Your task to perform on an android device: toggle javascript in the chrome app Image 0: 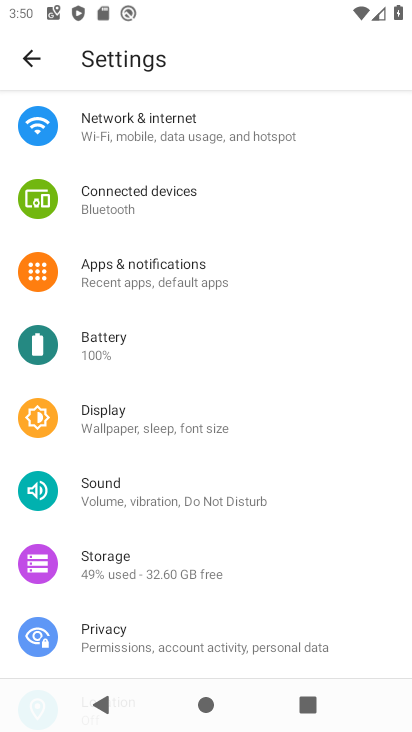
Step 0: press home button
Your task to perform on an android device: toggle javascript in the chrome app Image 1: 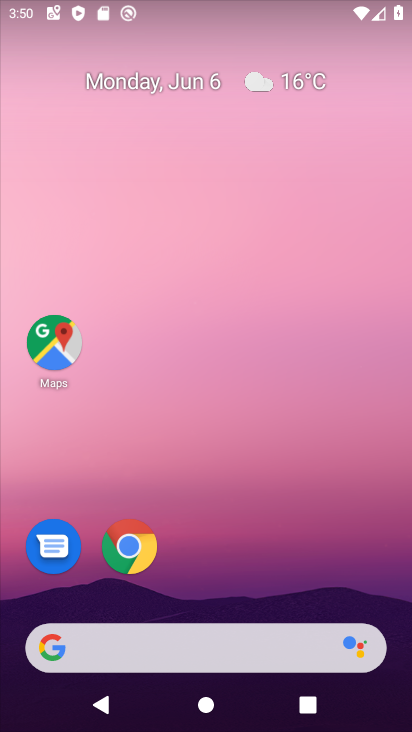
Step 1: drag from (311, 577) to (399, 212)
Your task to perform on an android device: toggle javascript in the chrome app Image 2: 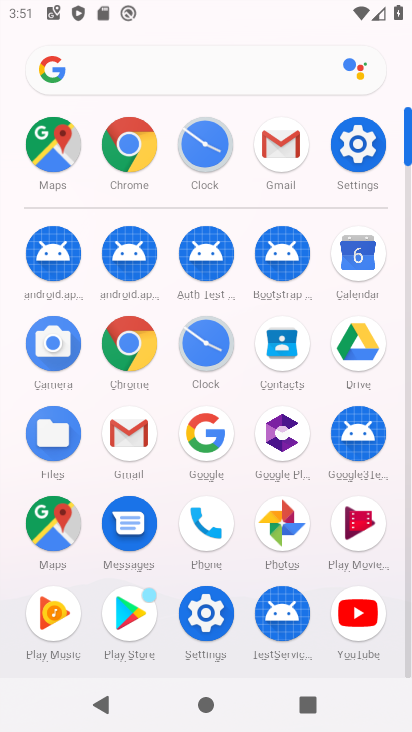
Step 2: click (131, 138)
Your task to perform on an android device: toggle javascript in the chrome app Image 3: 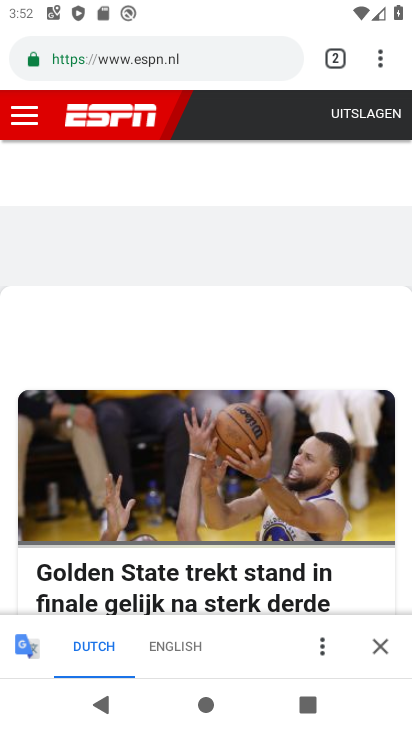
Step 3: drag from (384, 62) to (186, 578)
Your task to perform on an android device: toggle javascript in the chrome app Image 4: 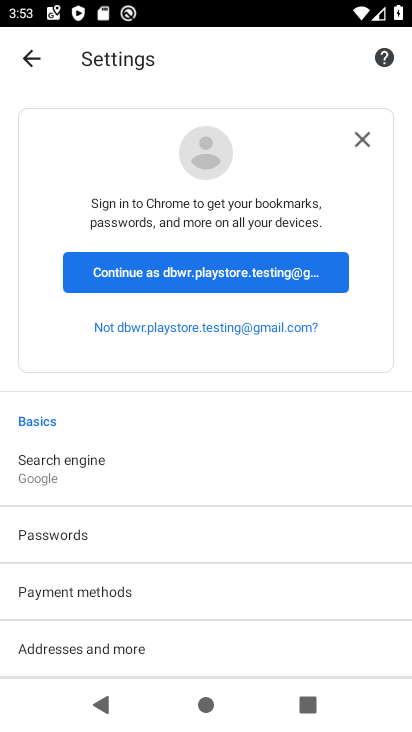
Step 4: drag from (101, 576) to (97, 76)
Your task to perform on an android device: toggle javascript in the chrome app Image 5: 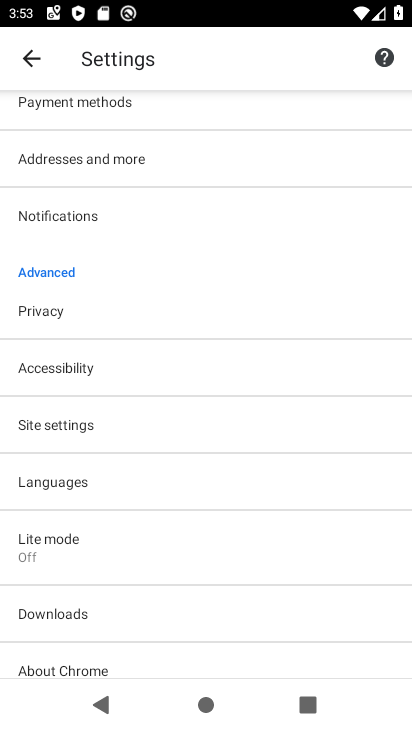
Step 5: drag from (204, 521) to (252, 70)
Your task to perform on an android device: toggle javascript in the chrome app Image 6: 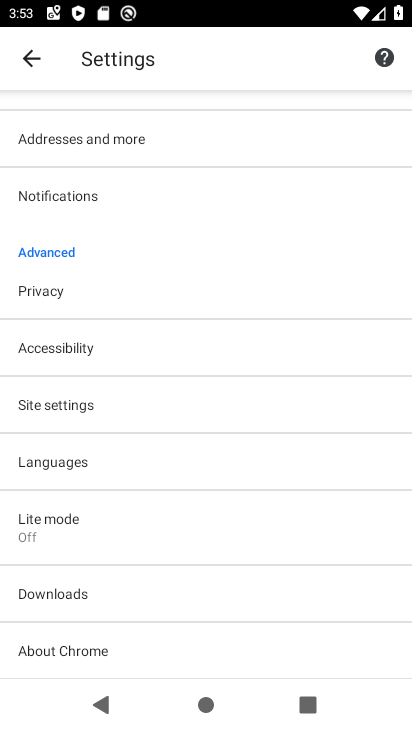
Step 6: drag from (159, 609) to (216, 287)
Your task to perform on an android device: toggle javascript in the chrome app Image 7: 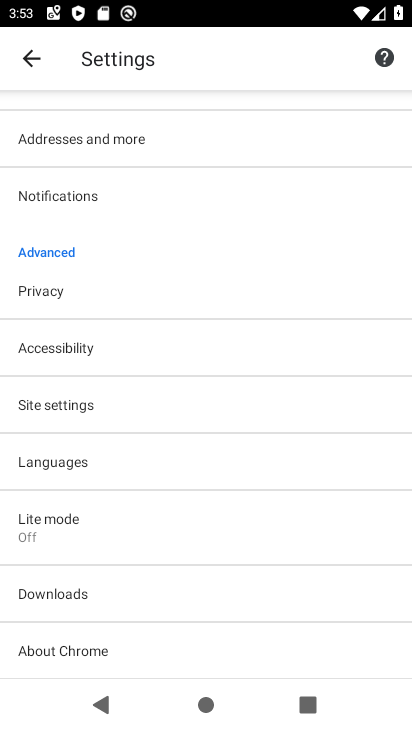
Step 7: click (72, 402)
Your task to perform on an android device: toggle javascript in the chrome app Image 8: 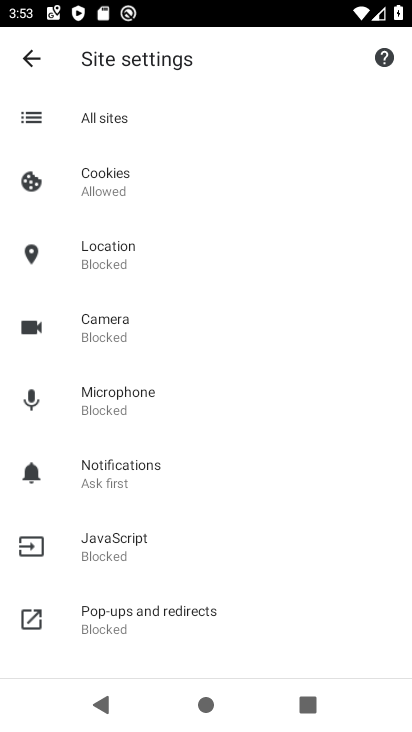
Step 8: click (120, 540)
Your task to perform on an android device: toggle javascript in the chrome app Image 9: 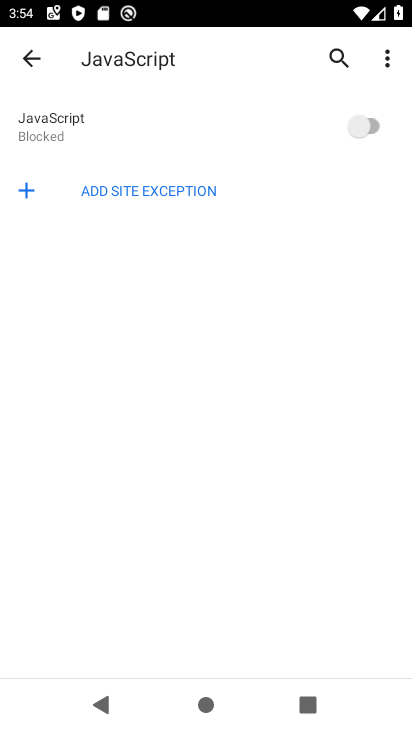
Step 9: task complete